Your task to perform on an android device: Open wifi settings Image 0: 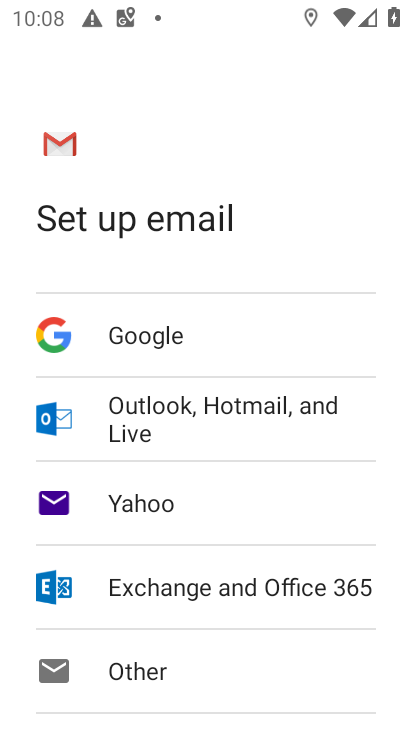
Step 0: press home button
Your task to perform on an android device: Open wifi settings Image 1: 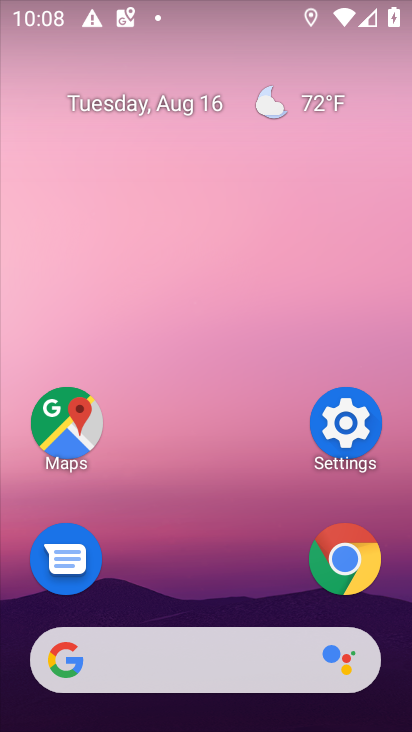
Step 1: click (353, 430)
Your task to perform on an android device: Open wifi settings Image 2: 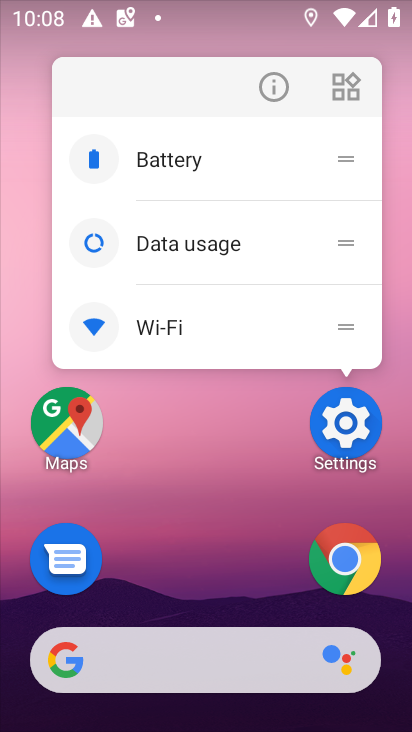
Step 2: click (343, 430)
Your task to perform on an android device: Open wifi settings Image 3: 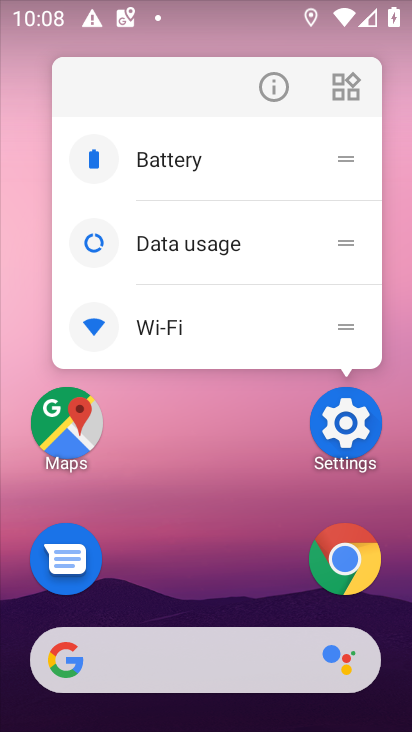
Step 3: click (343, 430)
Your task to perform on an android device: Open wifi settings Image 4: 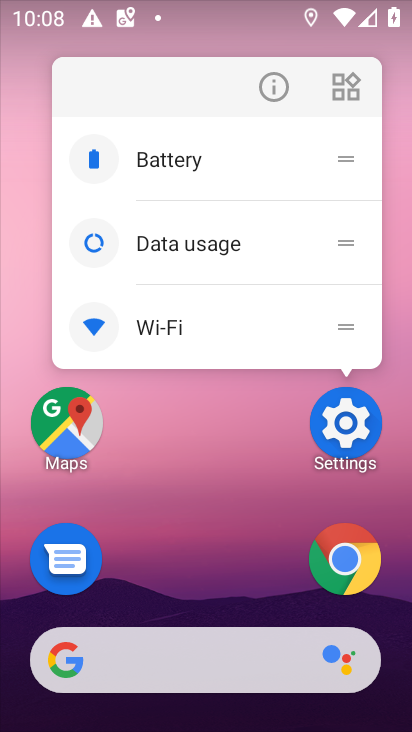
Step 4: click (346, 418)
Your task to perform on an android device: Open wifi settings Image 5: 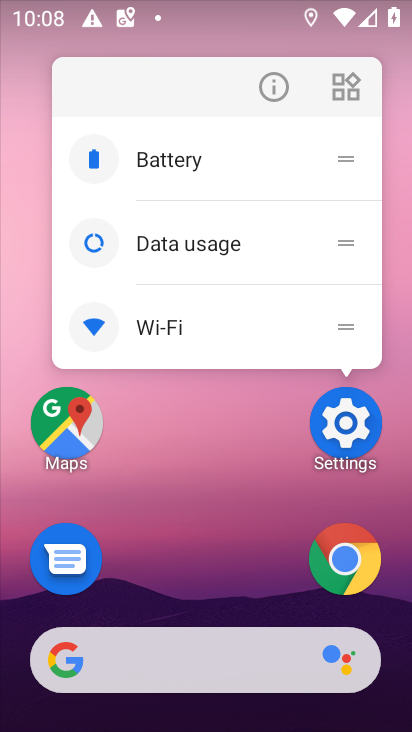
Step 5: click (346, 418)
Your task to perform on an android device: Open wifi settings Image 6: 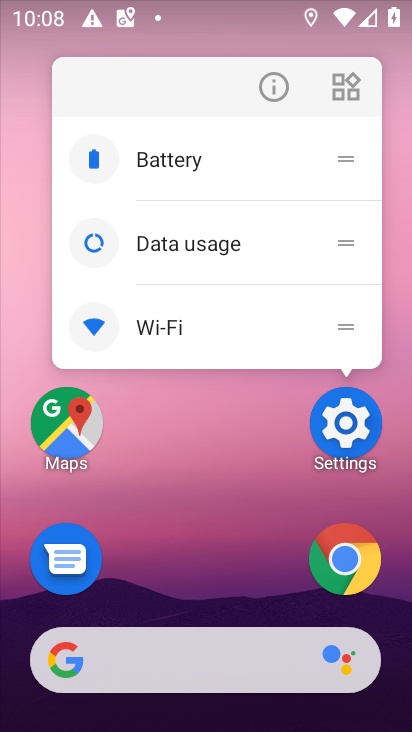
Step 6: click (346, 415)
Your task to perform on an android device: Open wifi settings Image 7: 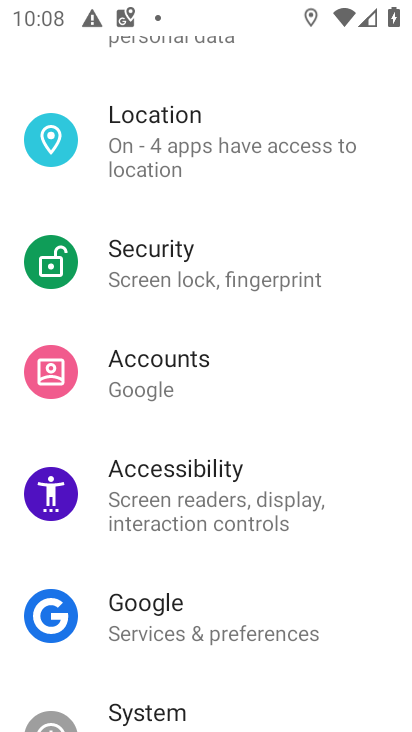
Step 7: drag from (323, 91) to (314, 632)
Your task to perform on an android device: Open wifi settings Image 8: 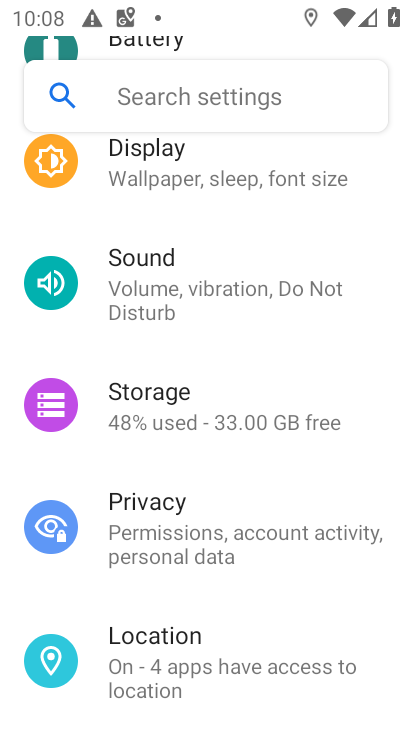
Step 8: drag from (353, 472) to (361, 622)
Your task to perform on an android device: Open wifi settings Image 9: 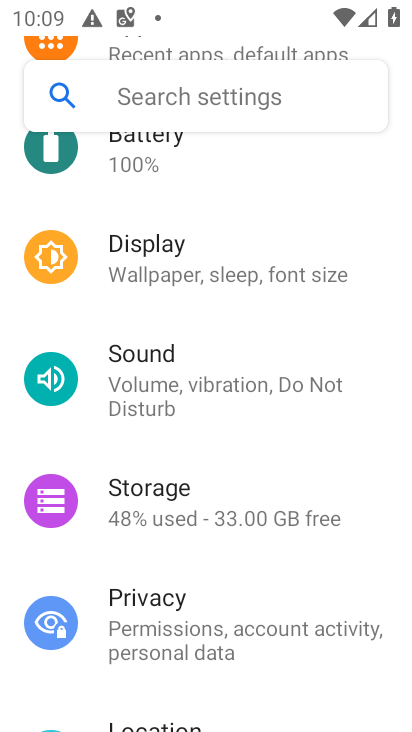
Step 9: drag from (312, 190) to (336, 686)
Your task to perform on an android device: Open wifi settings Image 10: 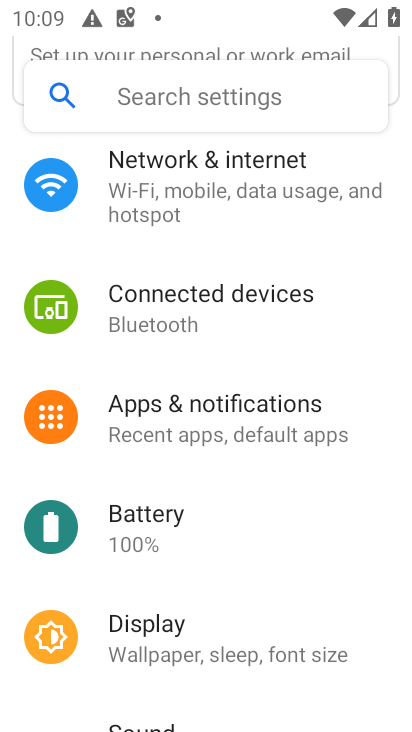
Step 10: drag from (315, 270) to (342, 631)
Your task to perform on an android device: Open wifi settings Image 11: 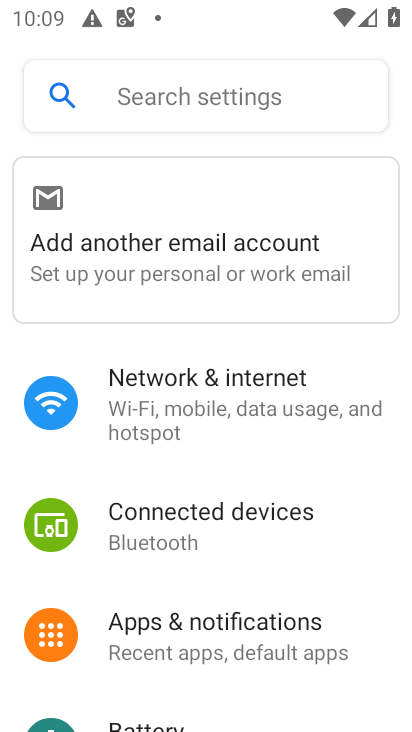
Step 11: click (230, 396)
Your task to perform on an android device: Open wifi settings Image 12: 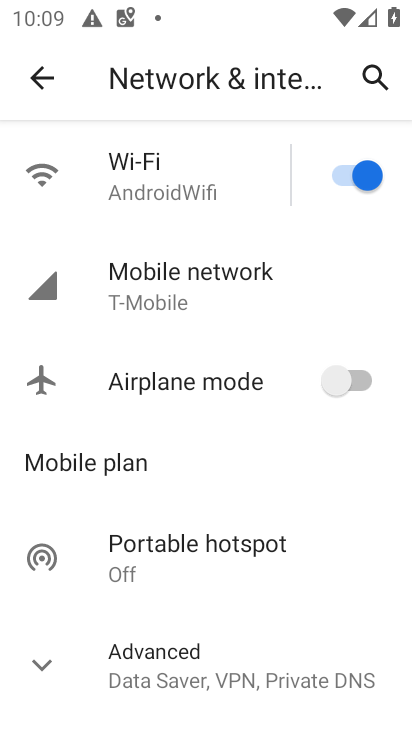
Step 12: click (121, 184)
Your task to perform on an android device: Open wifi settings Image 13: 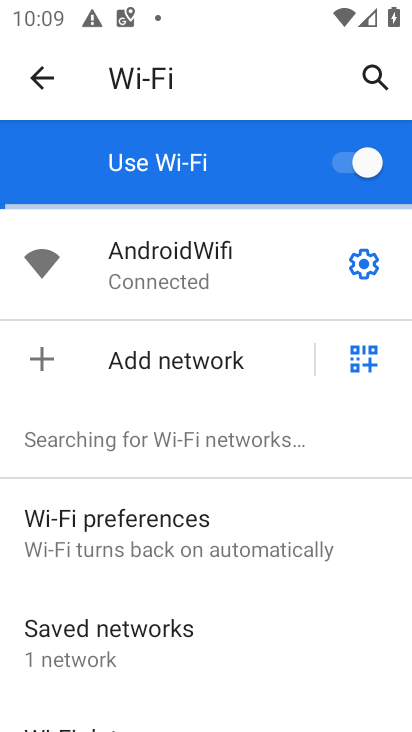
Step 13: task complete